Your task to perform on an android device: Open Amazon Image 0: 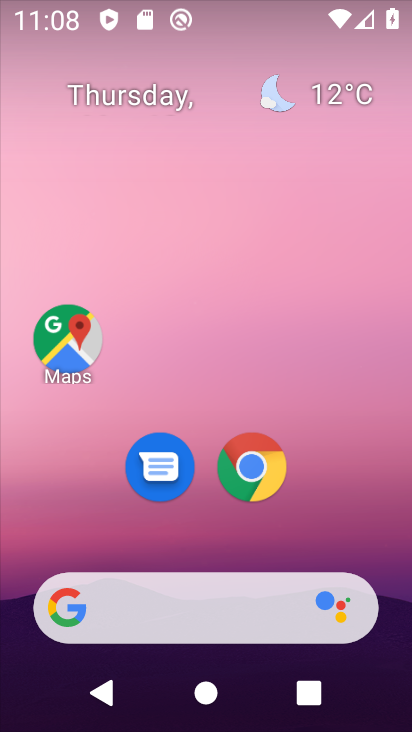
Step 0: drag from (357, 506) to (306, 61)
Your task to perform on an android device: Open Amazon Image 1: 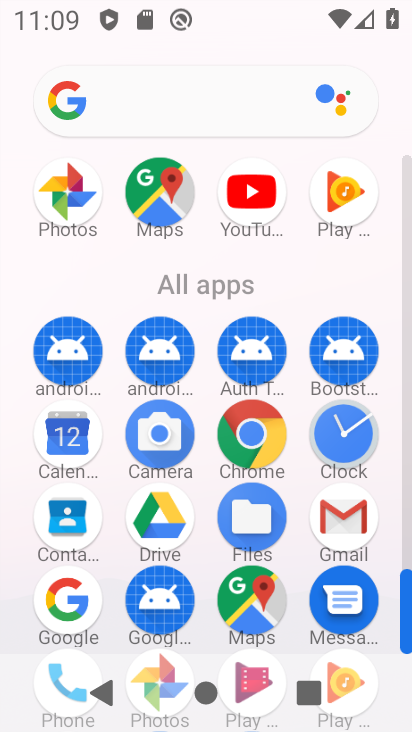
Step 1: click (245, 427)
Your task to perform on an android device: Open Amazon Image 2: 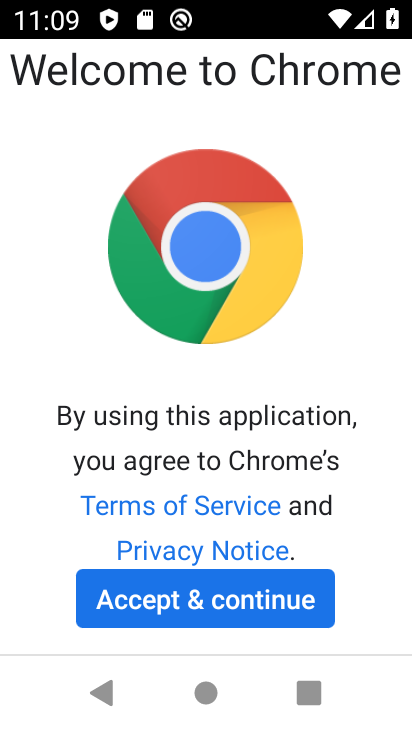
Step 2: click (231, 621)
Your task to perform on an android device: Open Amazon Image 3: 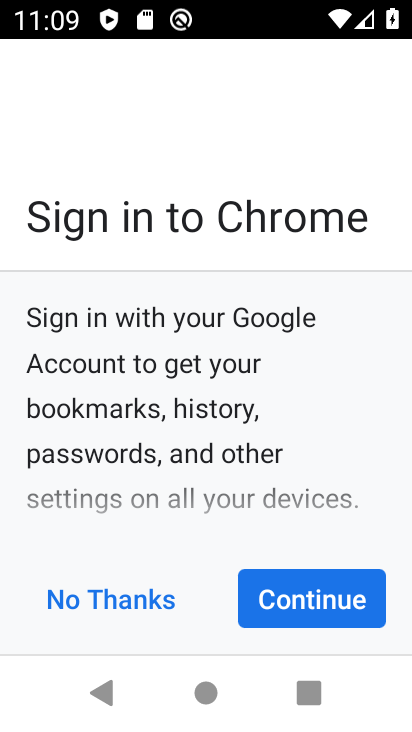
Step 3: click (316, 608)
Your task to perform on an android device: Open Amazon Image 4: 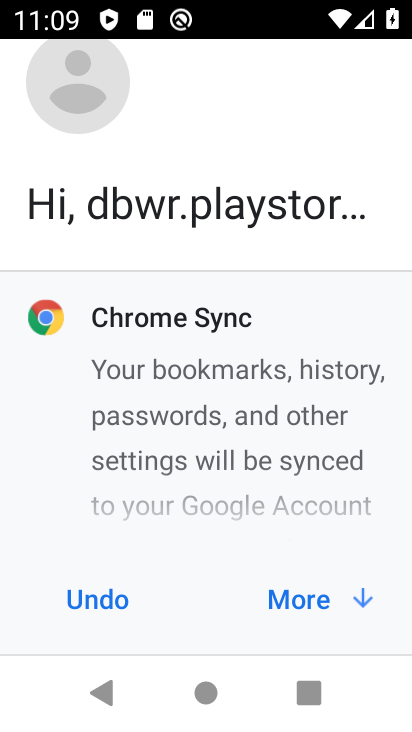
Step 4: click (315, 606)
Your task to perform on an android device: Open Amazon Image 5: 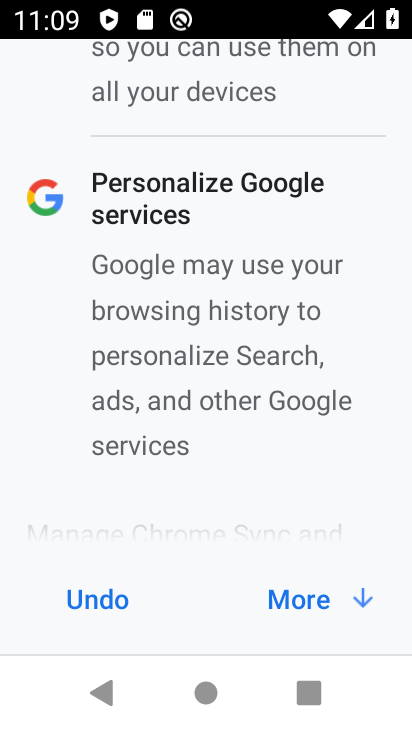
Step 5: click (315, 606)
Your task to perform on an android device: Open Amazon Image 6: 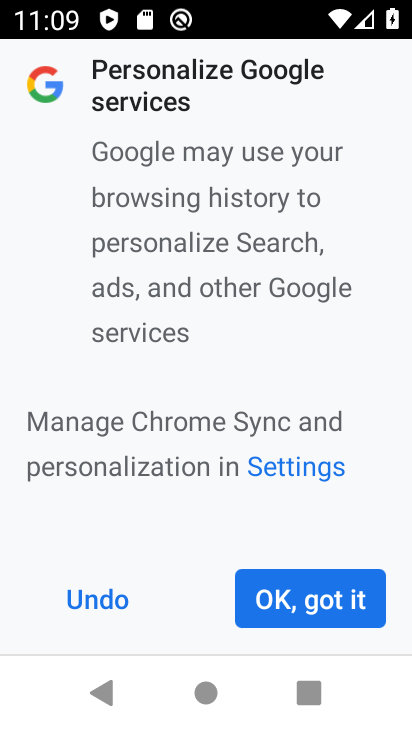
Step 6: click (315, 606)
Your task to perform on an android device: Open Amazon Image 7: 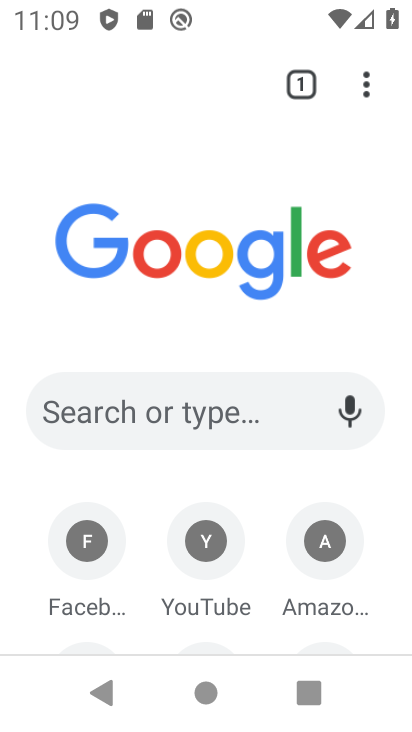
Step 7: click (186, 101)
Your task to perform on an android device: Open Amazon Image 8: 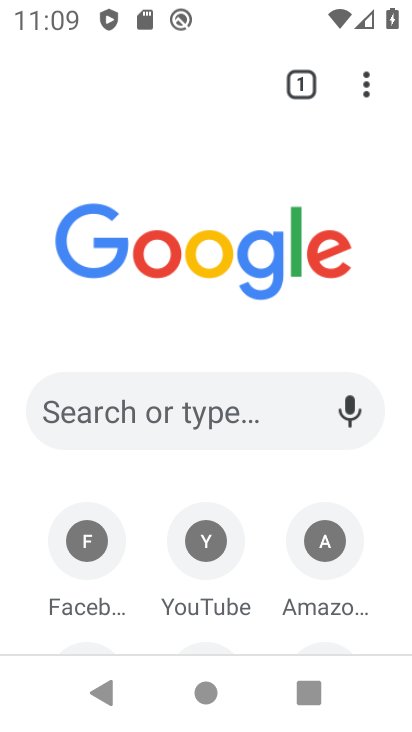
Step 8: click (163, 435)
Your task to perform on an android device: Open Amazon Image 9: 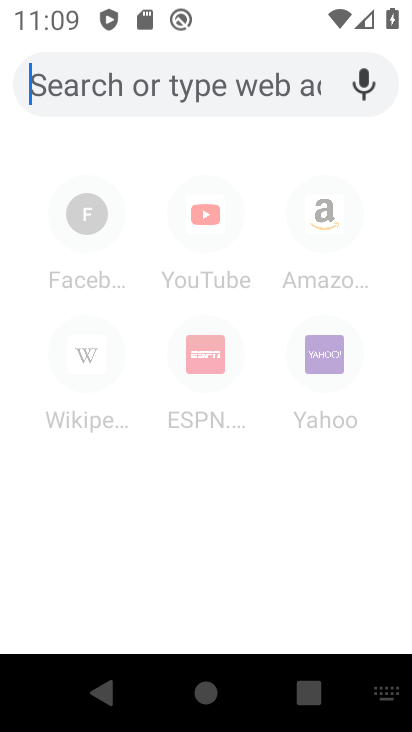
Step 9: click (314, 247)
Your task to perform on an android device: Open Amazon Image 10: 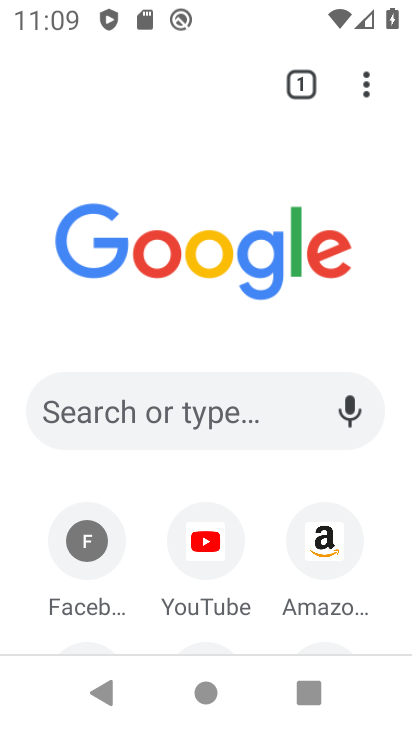
Step 10: click (330, 548)
Your task to perform on an android device: Open Amazon Image 11: 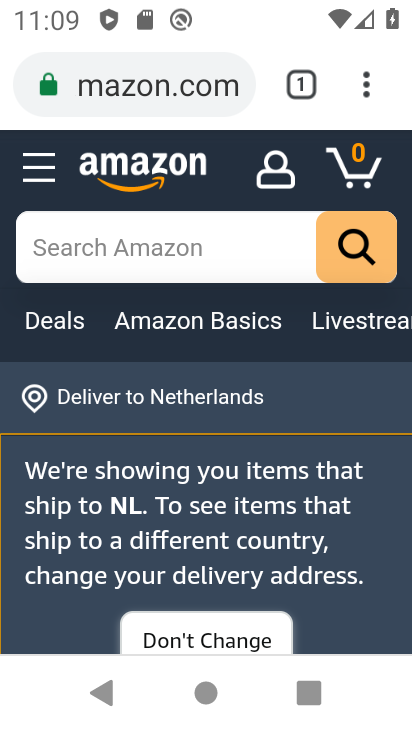
Step 11: task complete